Your task to perform on an android device: change timer sound Image 0: 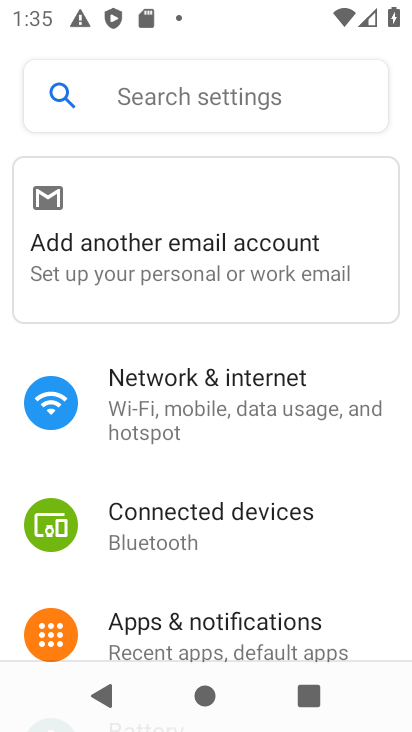
Step 0: press home button
Your task to perform on an android device: change timer sound Image 1: 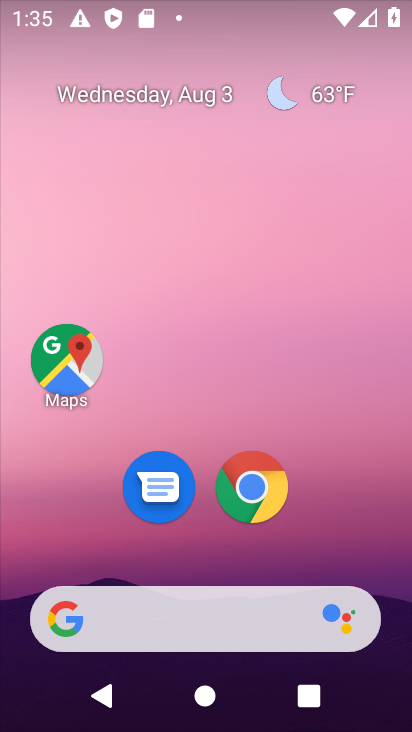
Step 1: drag from (355, 562) to (388, 119)
Your task to perform on an android device: change timer sound Image 2: 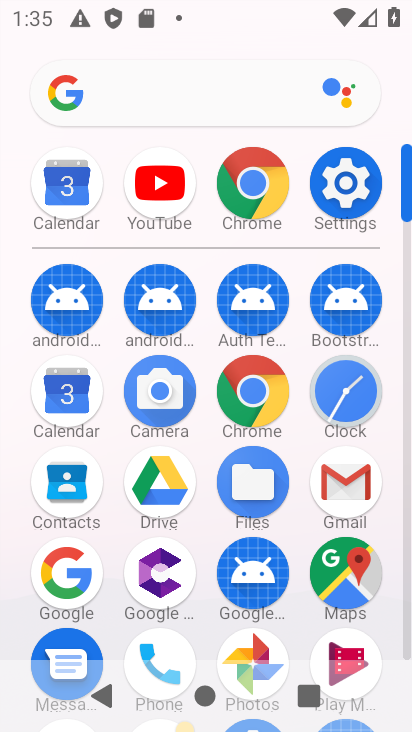
Step 2: click (350, 185)
Your task to perform on an android device: change timer sound Image 3: 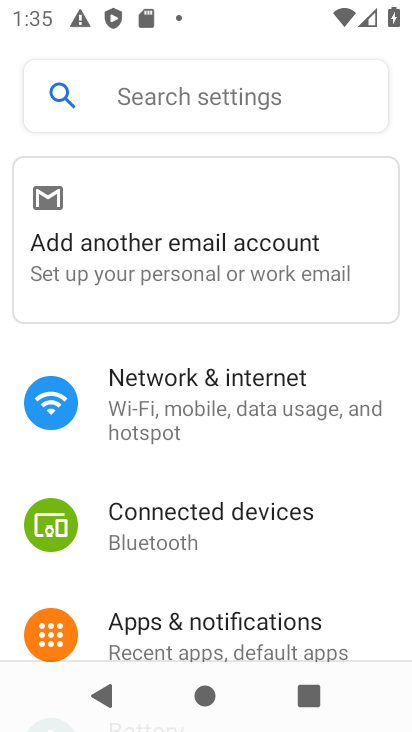
Step 3: drag from (291, 482) to (329, 104)
Your task to perform on an android device: change timer sound Image 4: 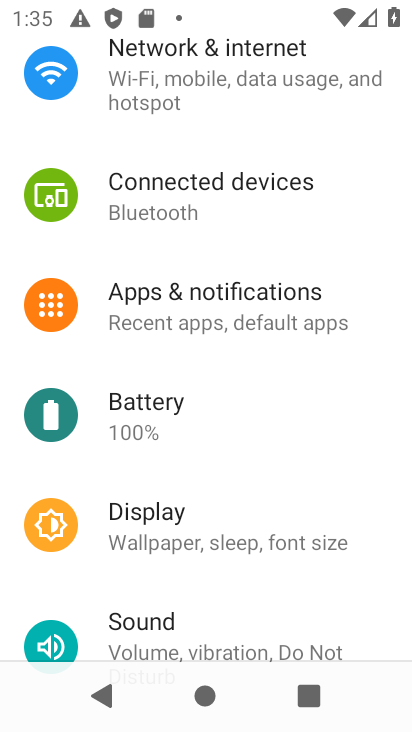
Step 4: click (130, 622)
Your task to perform on an android device: change timer sound Image 5: 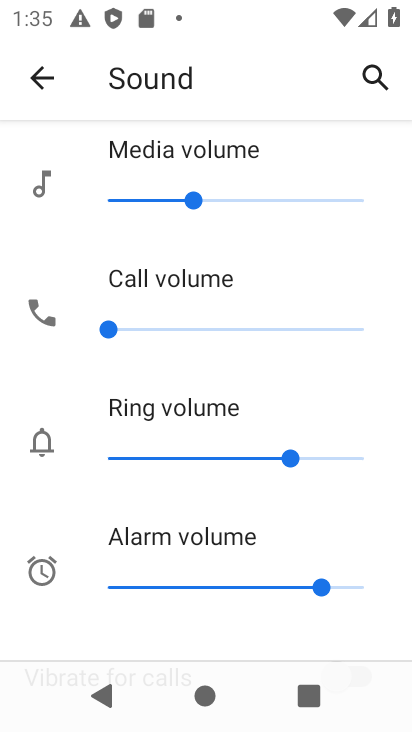
Step 5: task complete